Your task to perform on an android device: change the clock display to digital Image 0: 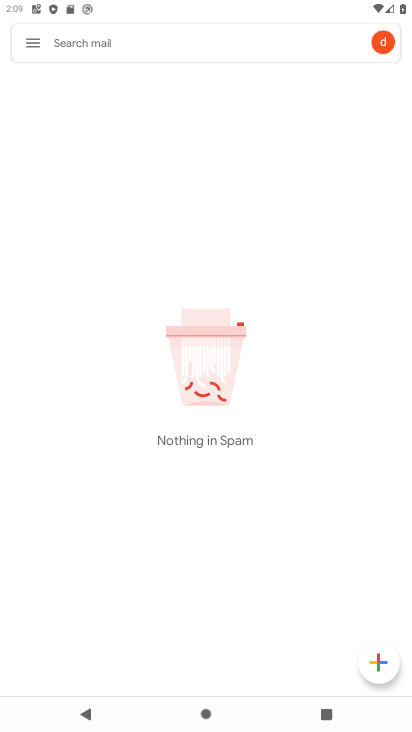
Step 0: press home button
Your task to perform on an android device: change the clock display to digital Image 1: 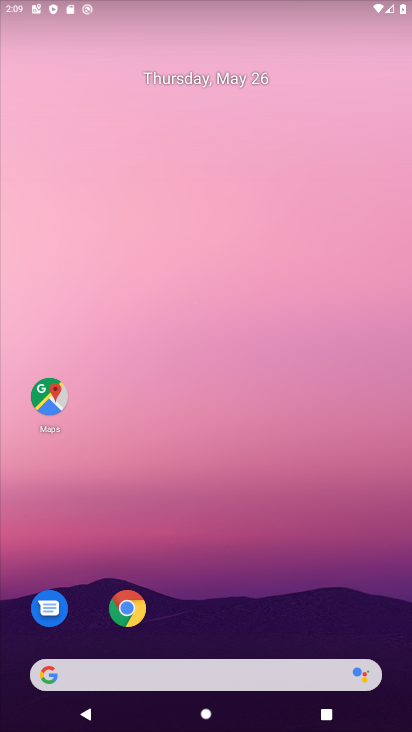
Step 1: drag from (341, 594) to (324, 25)
Your task to perform on an android device: change the clock display to digital Image 2: 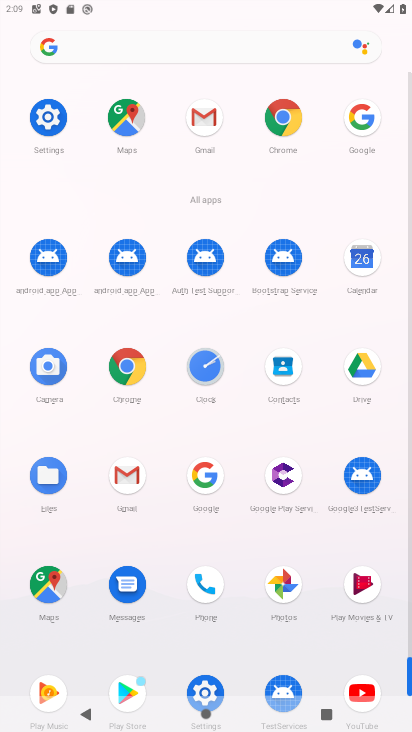
Step 2: click (199, 364)
Your task to perform on an android device: change the clock display to digital Image 3: 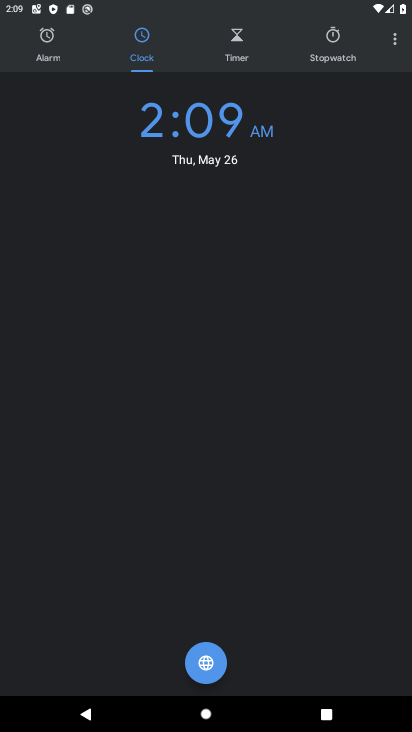
Step 3: click (389, 43)
Your task to perform on an android device: change the clock display to digital Image 4: 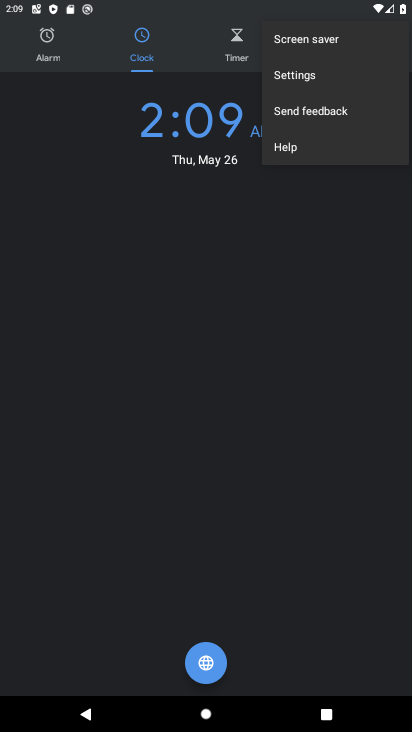
Step 4: click (301, 67)
Your task to perform on an android device: change the clock display to digital Image 5: 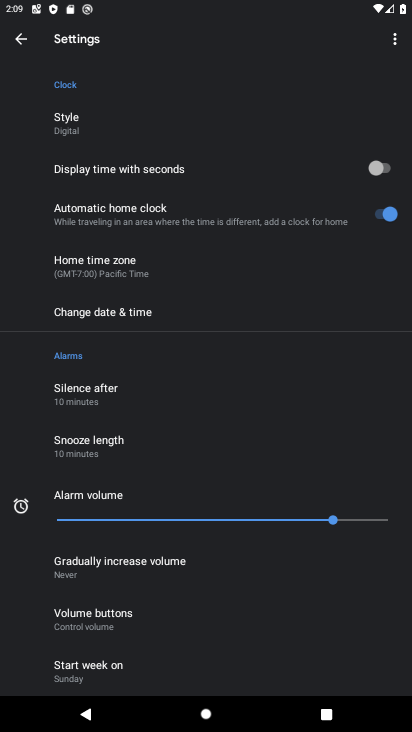
Step 5: click (60, 138)
Your task to perform on an android device: change the clock display to digital Image 6: 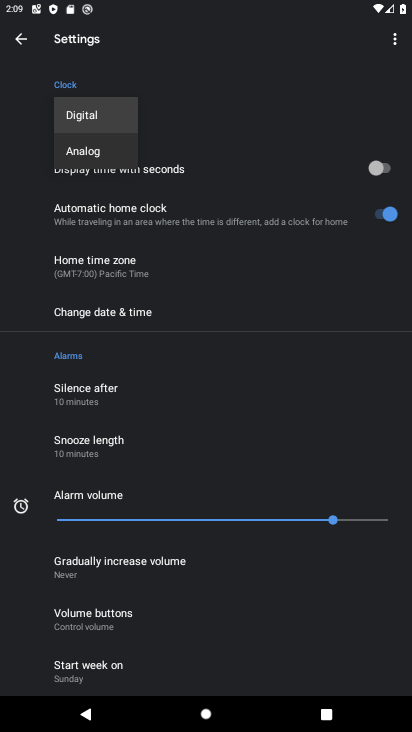
Step 6: click (100, 119)
Your task to perform on an android device: change the clock display to digital Image 7: 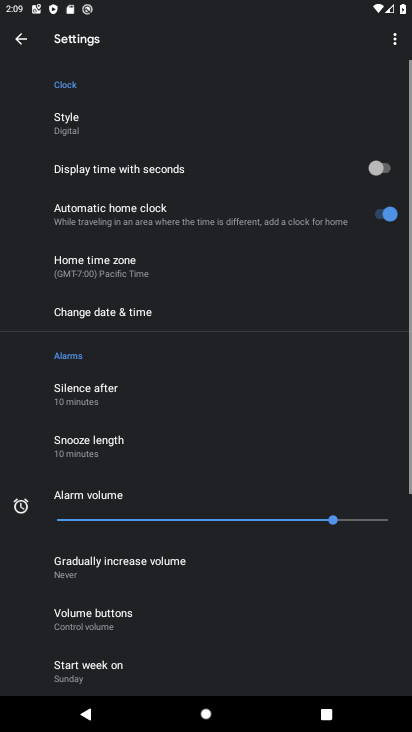
Step 7: task complete